Your task to perform on an android device: delete location history Image 0: 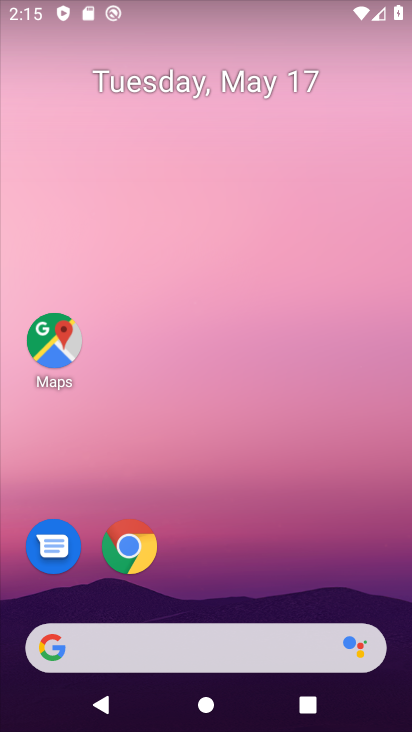
Step 0: drag from (237, 620) to (262, 203)
Your task to perform on an android device: delete location history Image 1: 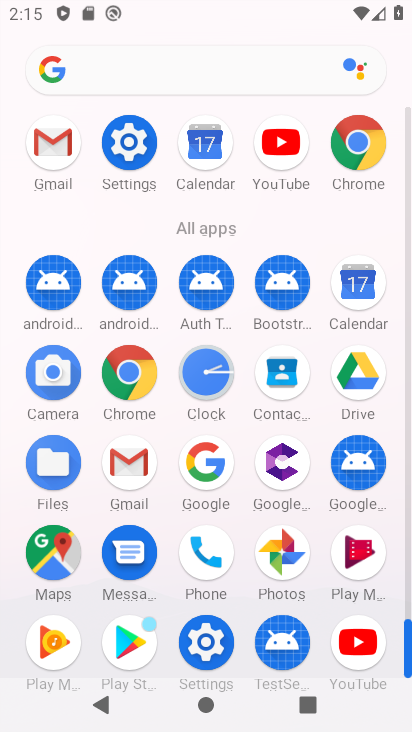
Step 1: click (126, 144)
Your task to perform on an android device: delete location history Image 2: 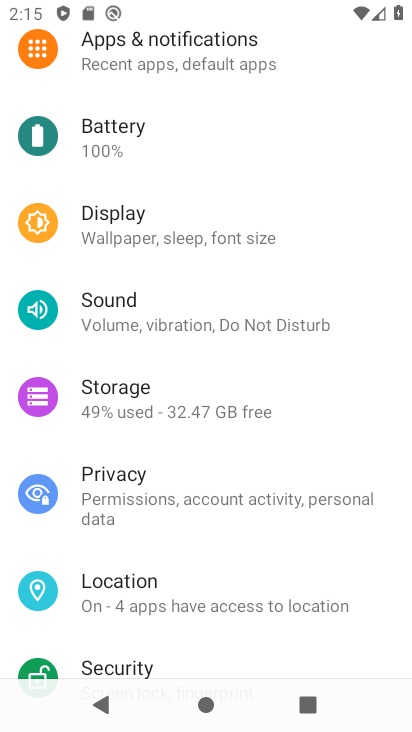
Step 2: click (215, 604)
Your task to perform on an android device: delete location history Image 3: 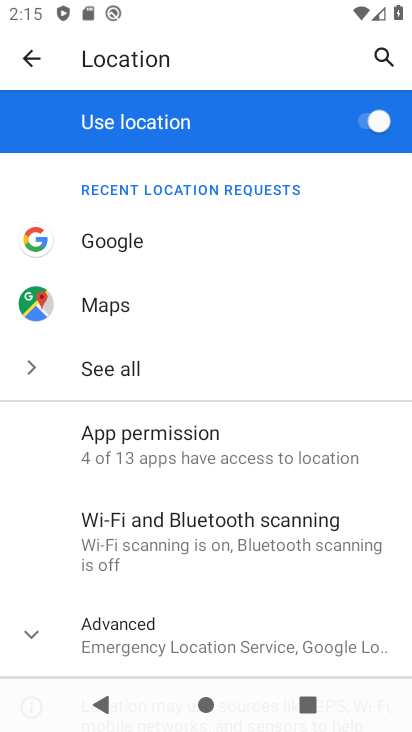
Step 3: click (251, 646)
Your task to perform on an android device: delete location history Image 4: 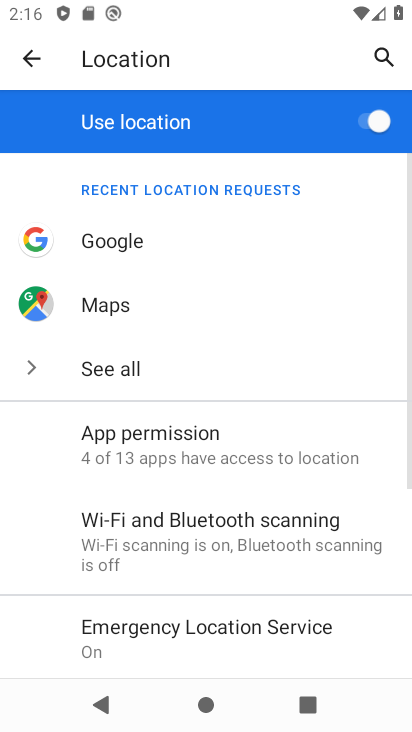
Step 4: drag from (236, 526) to (279, 220)
Your task to perform on an android device: delete location history Image 5: 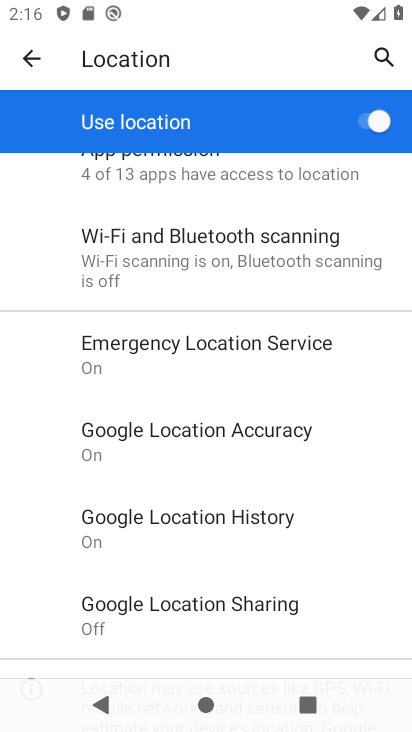
Step 5: click (283, 521)
Your task to perform on an android device: delete location history Image 6: 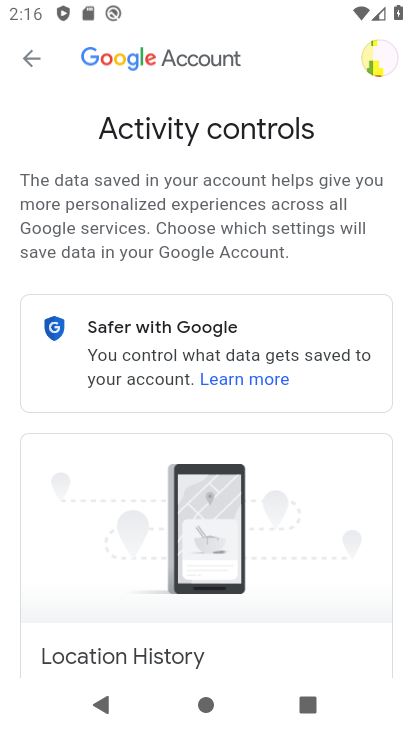
Step 6: drag from (210, 558) to (282, 117)
Your task to perform on an android device: delete location history Image 7: 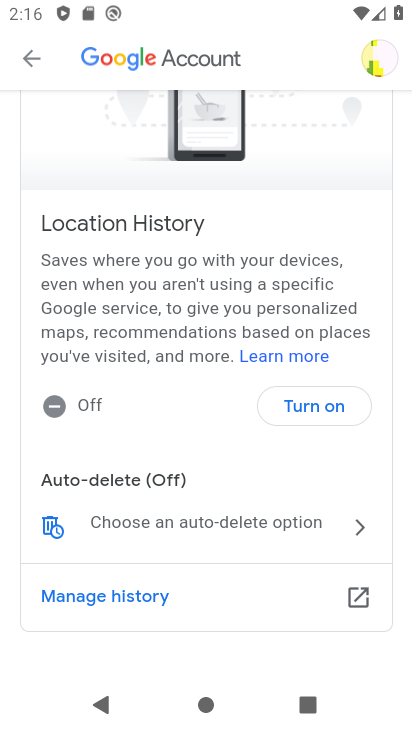
Step 7: click (235, 531)
Your task to perform on an android device: delete location history Image 8: 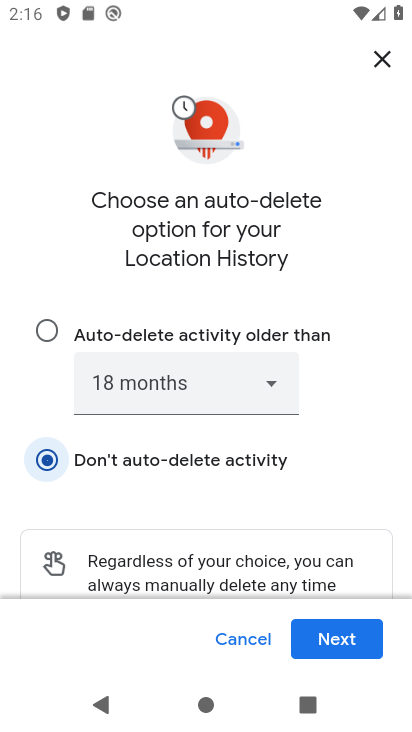
Step 8: click (345, 632)
Your task to perform on an android device: delete location history Image 9: 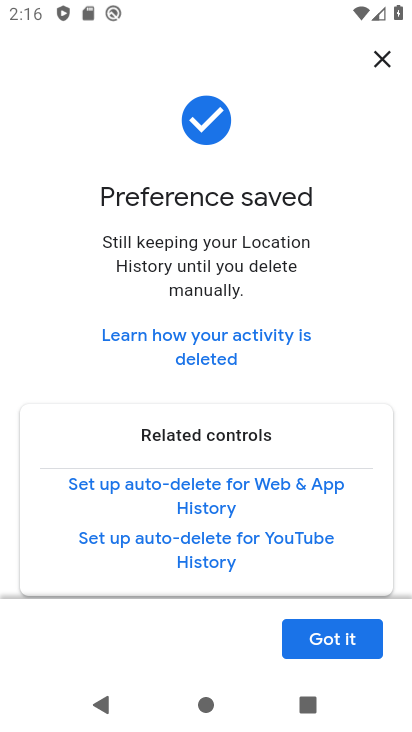
Step 9: click (358, 644)
Your task to perform on an android device: delete location history Image 10: 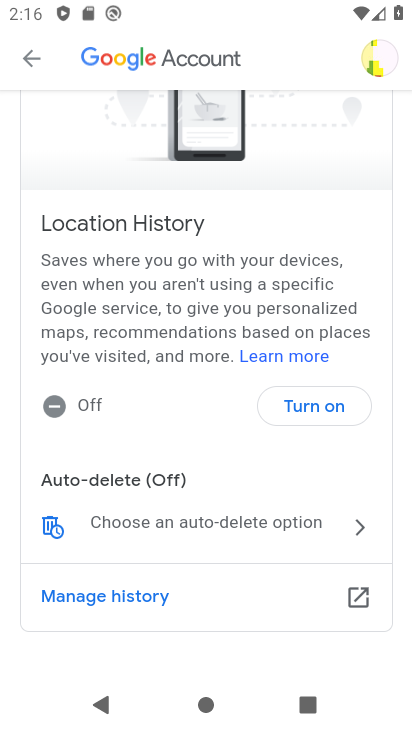
Step 10: click (279, 533)
Your task to perform on an android device: delete location history Image 11: 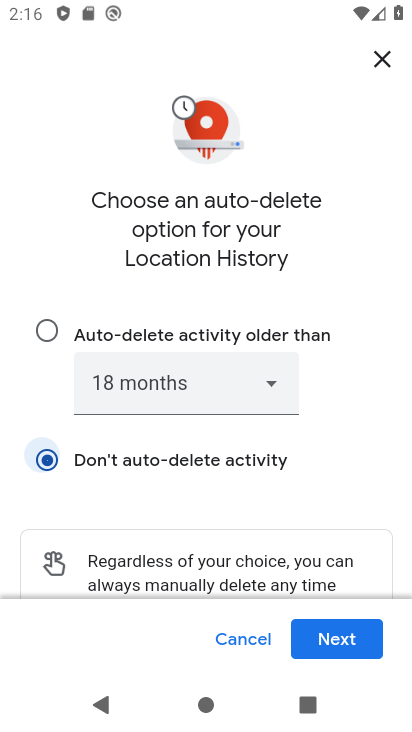
Step 11: task complete